Your task to perform on an android device: Open Google Image 0: 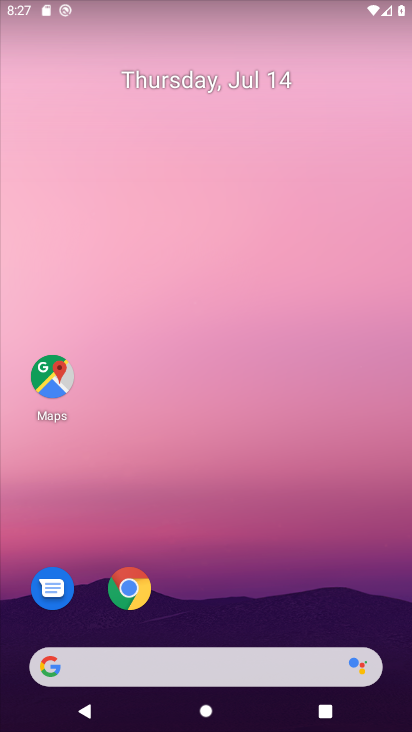
Step 0: drag from (345, 596) to (378, 95)
Your task to perform on an android device: Open Google Image 1: 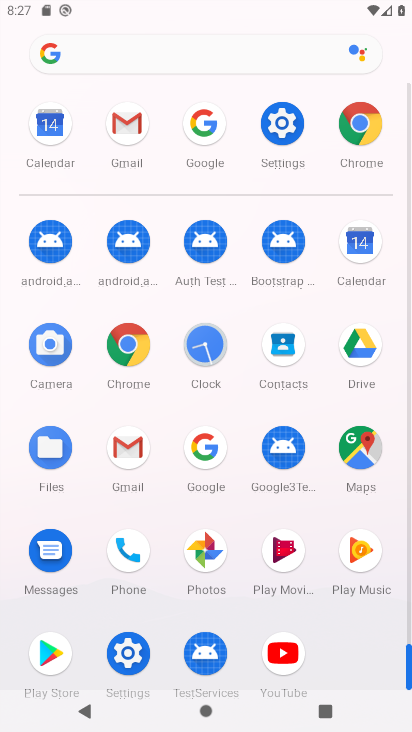
Step 1: click (205, 453)
Your task to perform on an android device: Open Google Image 2: 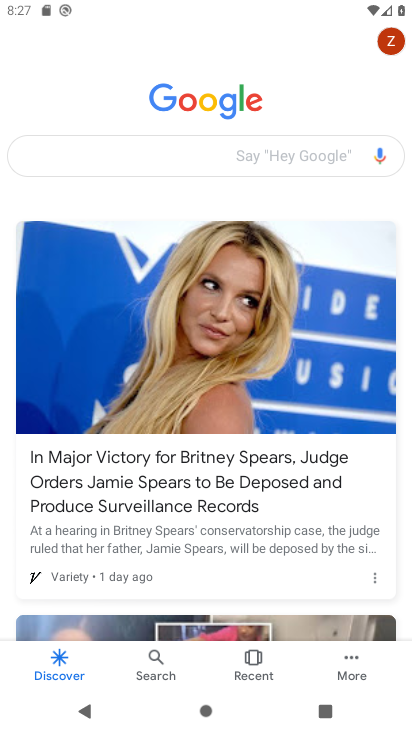
Step 2: task complete